Your task to perform on an android device: move a message to another label in the gmail app Image 0: 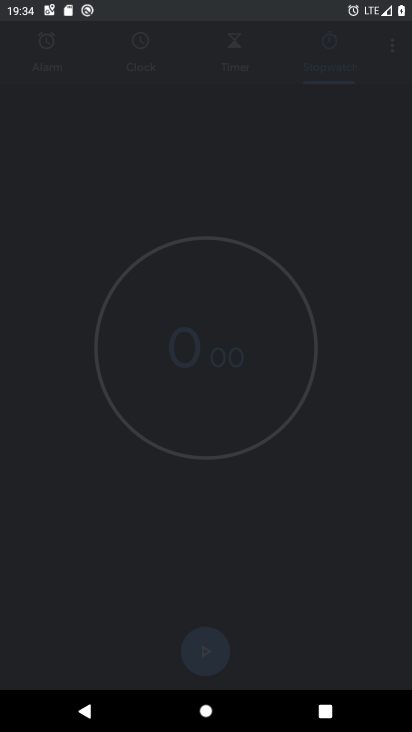
Step 0: click (281, 592)
Your task to perform on an android device: move a message to another label in the gmail app Image 1: 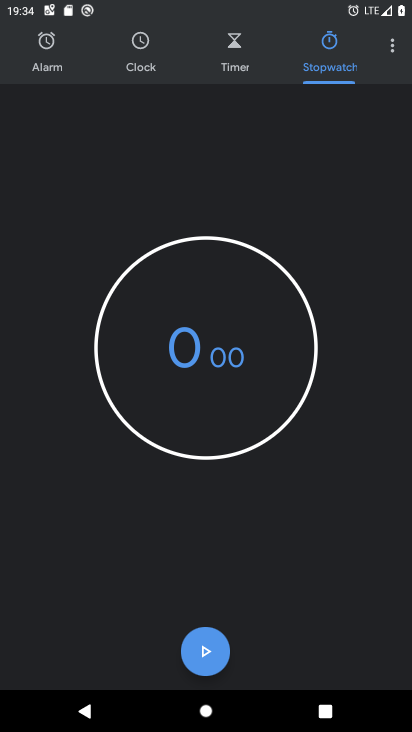
Step 1: press home button
Your task to perform on an android device: move a message to another label in the gmail app Image 2: 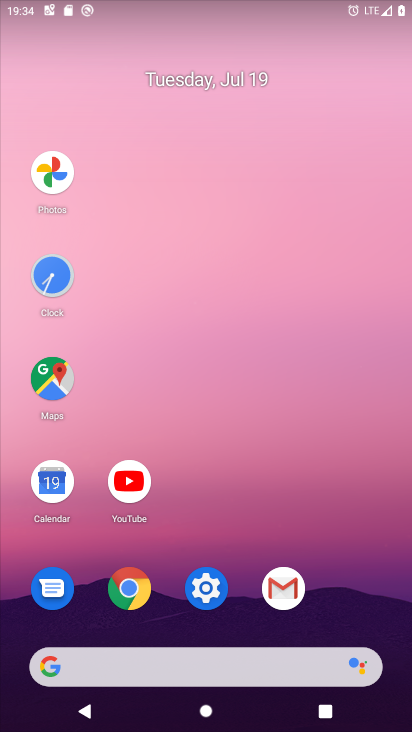
Step 2: click (286, 591)
Your task to perform on an android device: move a message to another label in the gmail app Image 3: 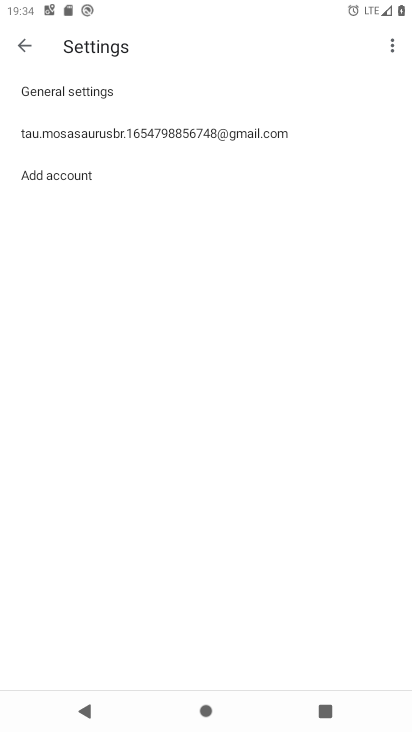
Step 3: click (24, 48)
Your task to perform on an android device: move a message to another label in the gmail app Image 4: 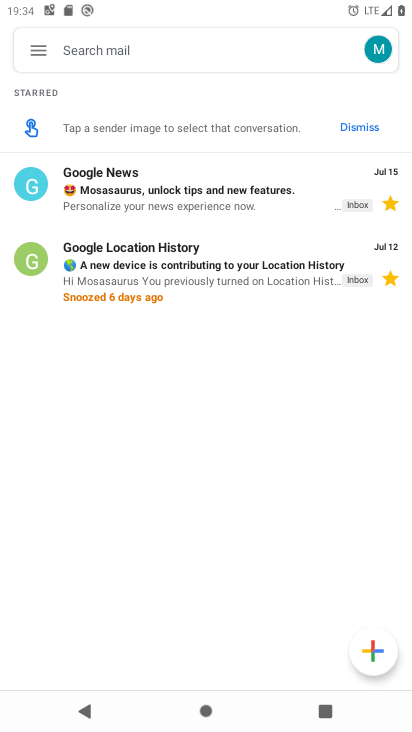
Step 4: click (124, 168)
Your task to perform on an android device: move a message to another label in the gmail app Image 5: 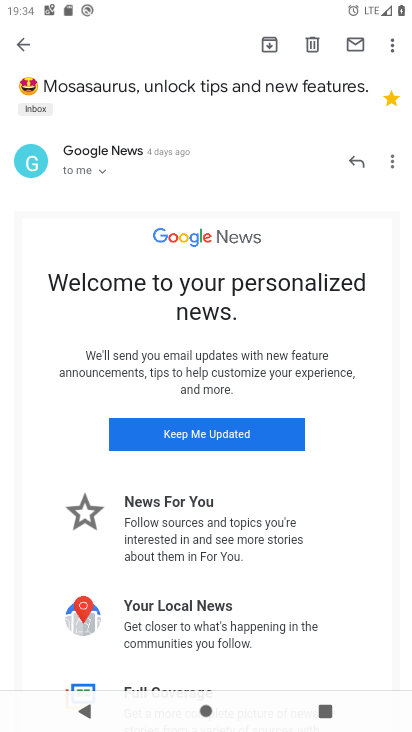
Step 5: click (392, 40)
Your task to perform on an android device: move a message to another label in the gmail app Image 6: 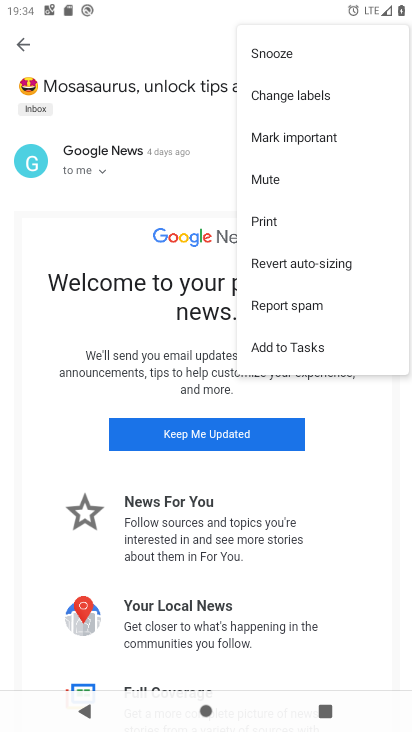
Step 6: click (299, 99)
Your task to perform on an android device: move a message to another label in the gmail app Image 7: 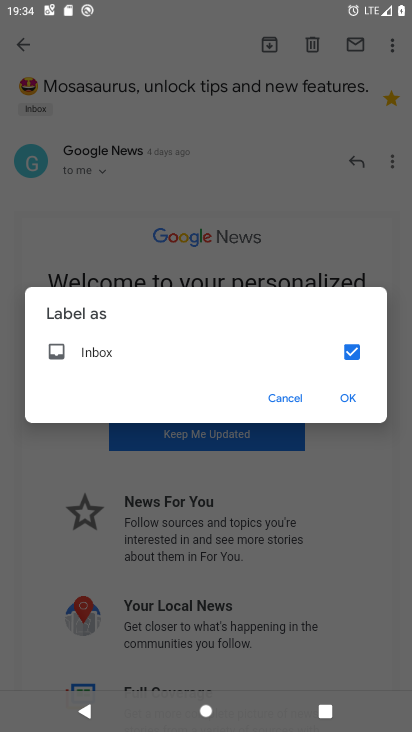
Step 7: click (345, 392)
Your task to perform on an android device: move a message to another label in the gmail app Image 8: 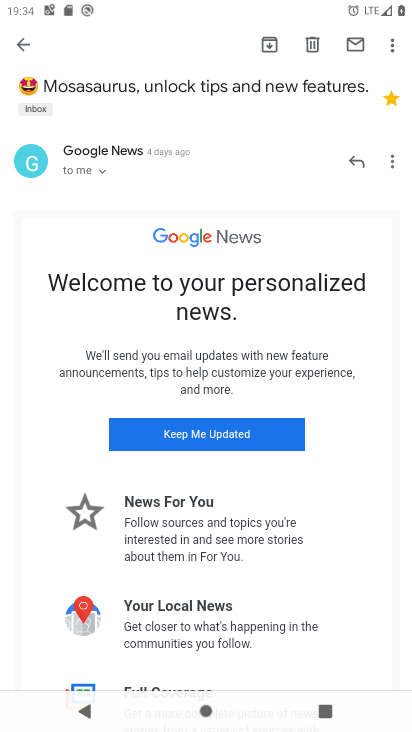
Step 8: task complete